Your task to perform on an android device: Open Youtube and go to the subscriptions tab Image 0: 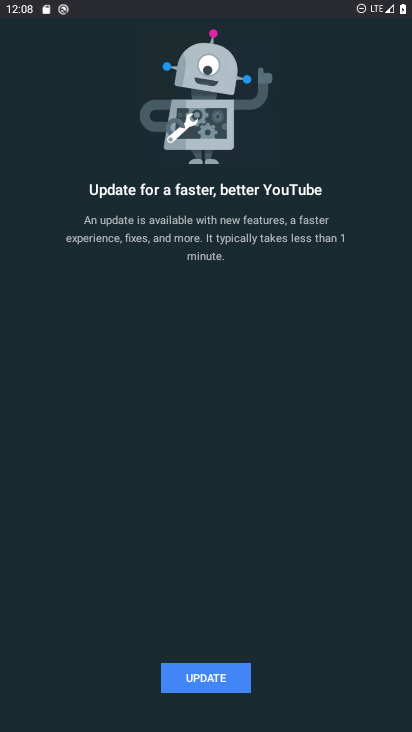
Step 0: task impossible